Your task to perform on an android device: Show me popular games on the Play Store Image 0: 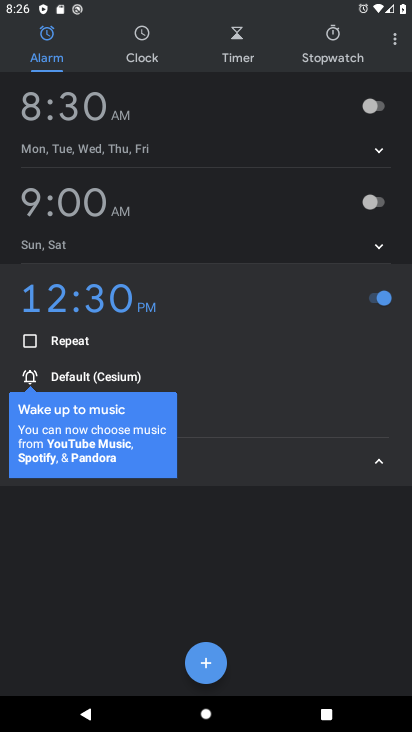
Step 0: press home button
Your task to perform on an android device: Show me popular games on the Play Store Image 1: 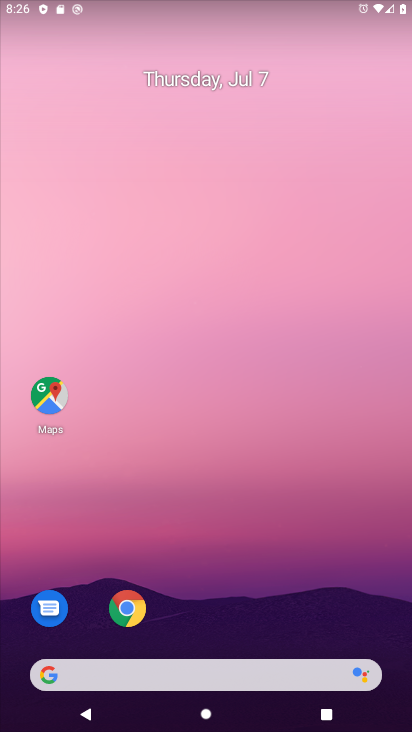
Step 1: drag from (223, 666) to (188, 163)
Your task to perform on an android device: Show me popular games on the Play Store Image 2: 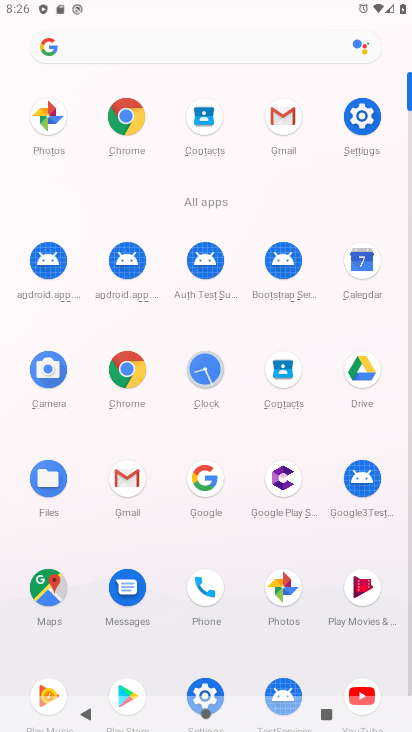
Step 2: click (120, 694)
Your task to perform on an android device: Show me popular games on the Play Store Image 3: 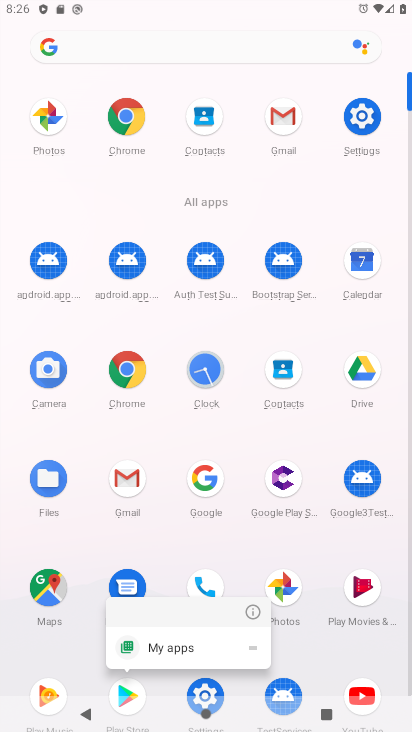
Step 3: click (131, 694)
Your task to perform on an android device: Show me popular games on the Play Store Image 4: 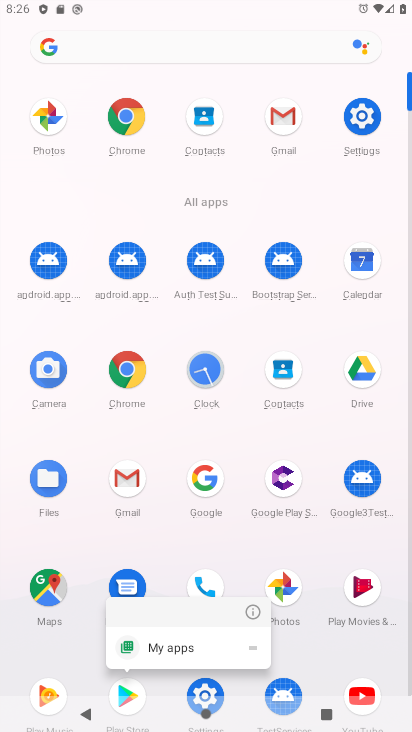
Step 4: click (122, 690)
Your task to perform on an android device: Show me popular games on the Play Store Image 5: 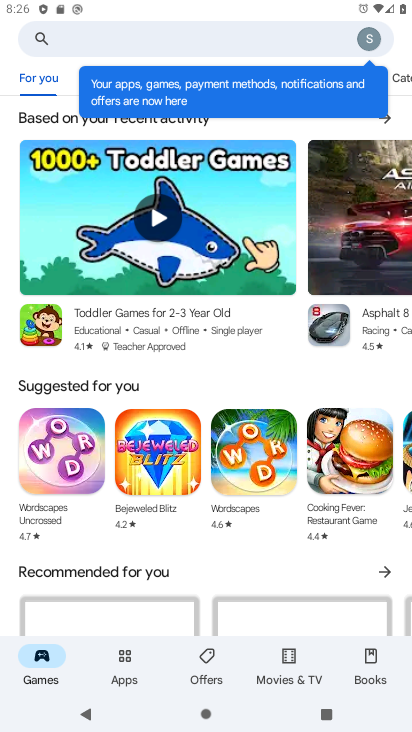
Step 5: click (166, 43)
Your task to perform on an android device: Show me popular games on the Play Store Image 6: 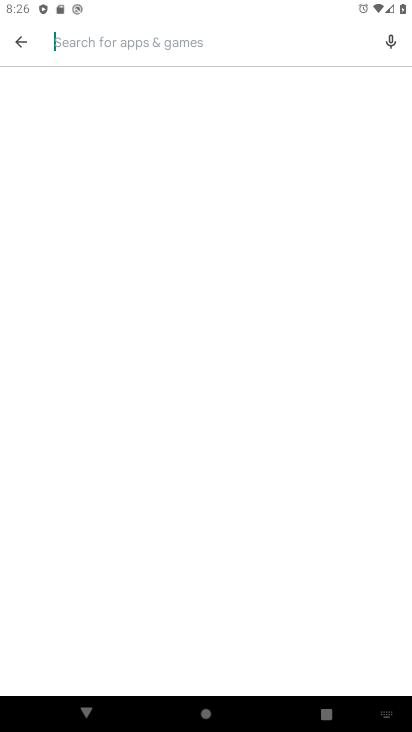
Step 6: type "popular games"
Your task to perform on an android device: Show me popular games on the Play Store Image 7: 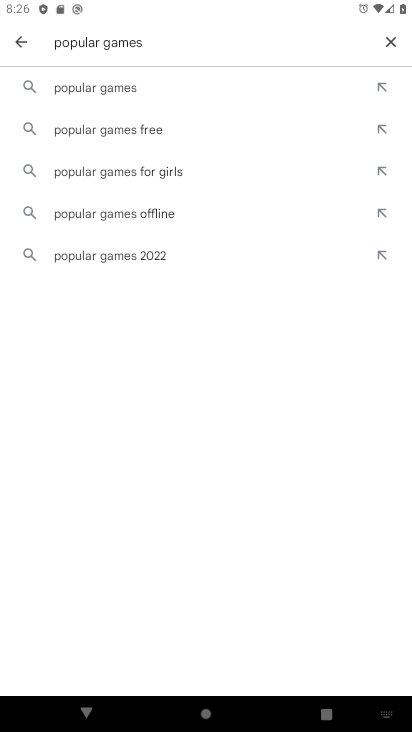
Step 7: click (77, 88)
Your task to perform on an android device: Show me popular games on the Play Store Image 8: 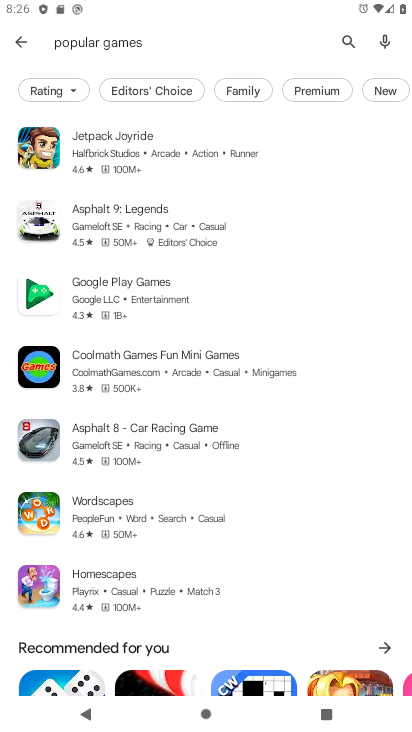
Step 8: task complete